Your task to perform on an android device: allow notifications from all sites in the chrome app Image 0: 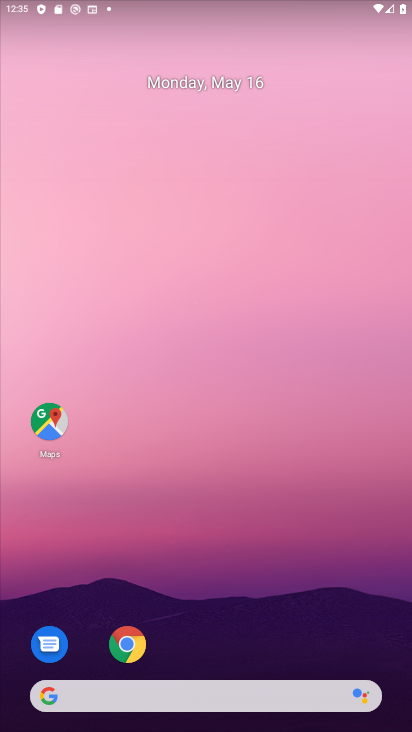
Step 0: click (146, 639)
Your task to perform on an android device: allow notifications from all sites in the chrome app Image 1: 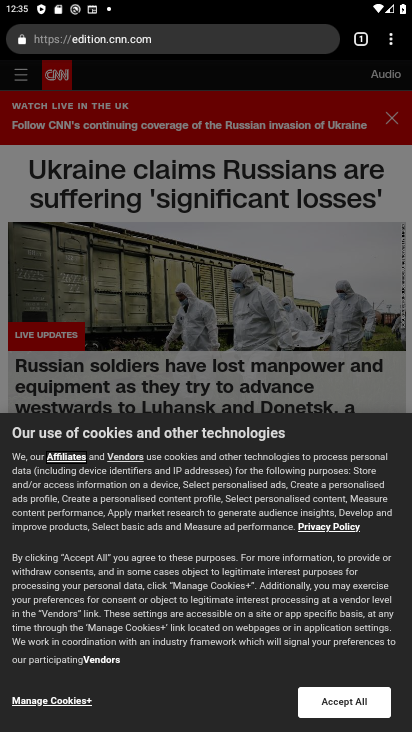
Step 1: drag from (390, 29) to (264, 436)
Your task to perform on an android device: allow notifications from all sites in the chrome app Image 2: 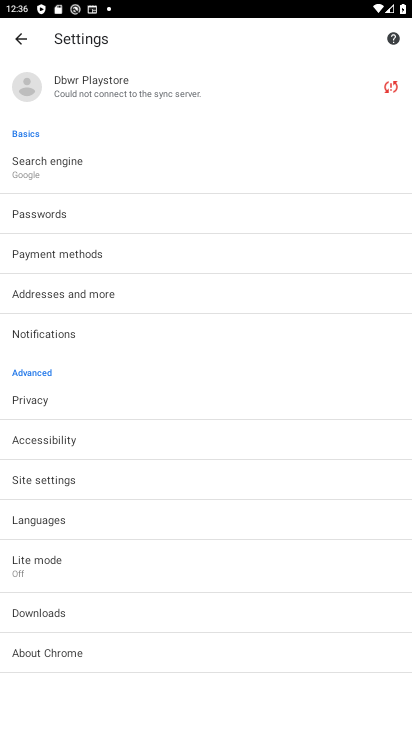
Step 2: click (48, 480)
Your task to perform on an android device: allow notifications from all sites in the chrome app Image 3: 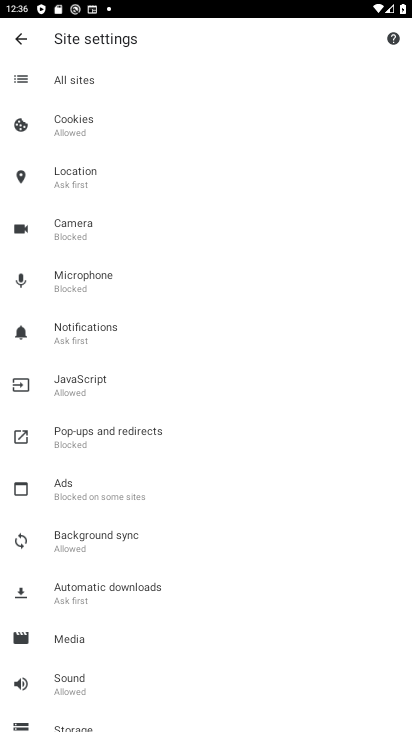
Step 3: click (66, 329)
Your task to perform on an android device: allow notifications from all sites in the chrome app Image 4: 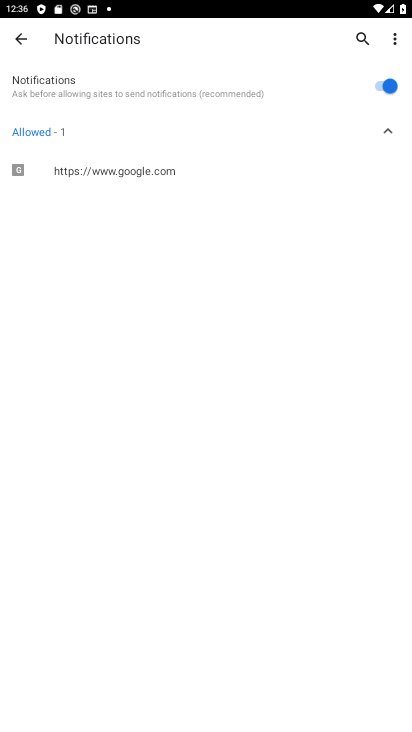
Step 4: task complete